Your task to perform on an android device: Open the phone app and click the voicemail tab. Image 0: 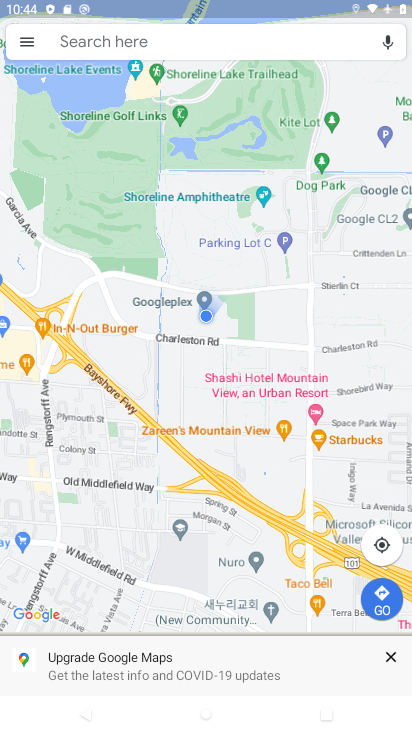
Step 0: press home button
Your task to perform on an android device: Open the phone app and click the voicemail tab. Image 1: 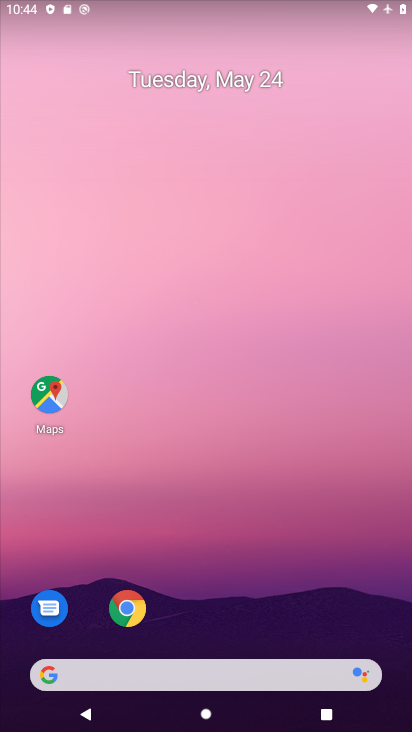
Step 1: drag from (394, 635) to (330, 203)
Your task to perform on an android device: Open the phone app and click the voicemail tab. Image 2: 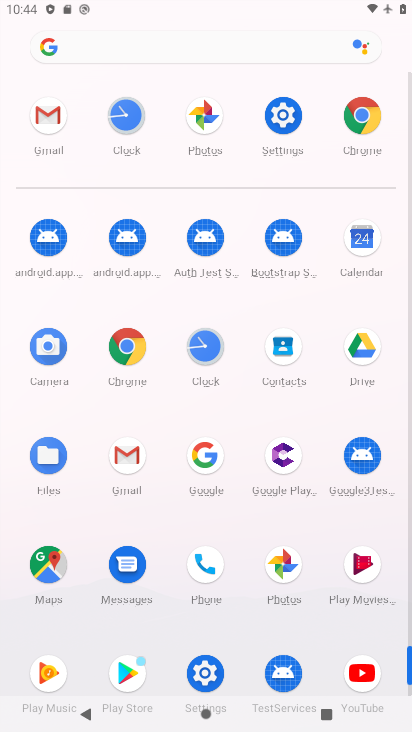
Step 2: click (200, 566)
Your task to perform on an android device: Open the phone app and click the voicemail tab. Image 3: 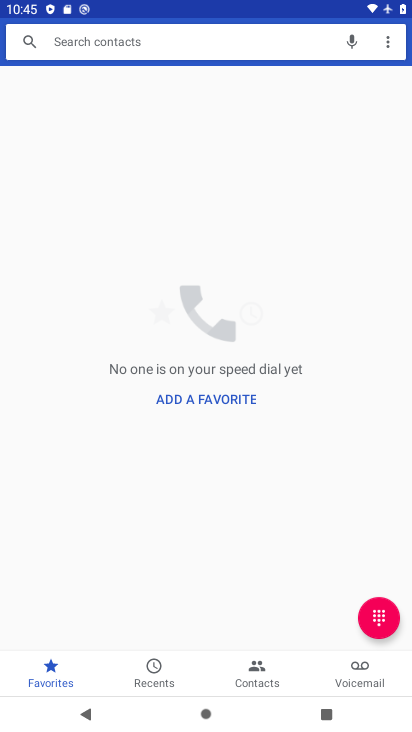
Step 3: click (344, 670)
Your task to perform on an android device: Open the phone app and click the voicemail tab. Image 4: 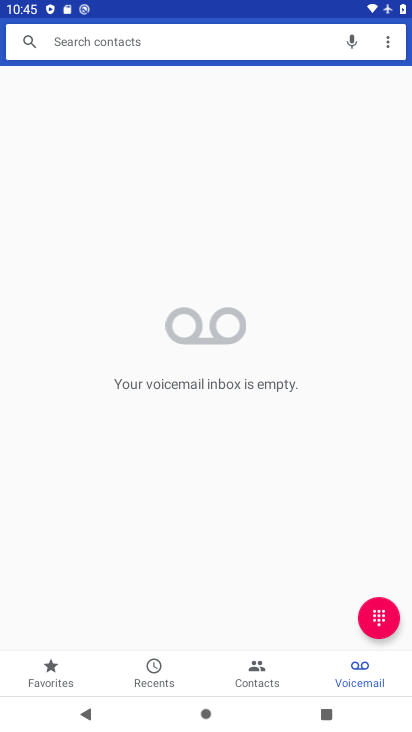
Step 4: task complete